Your task to perform on an android device: move an email to a new category in the gmail app Image 0: 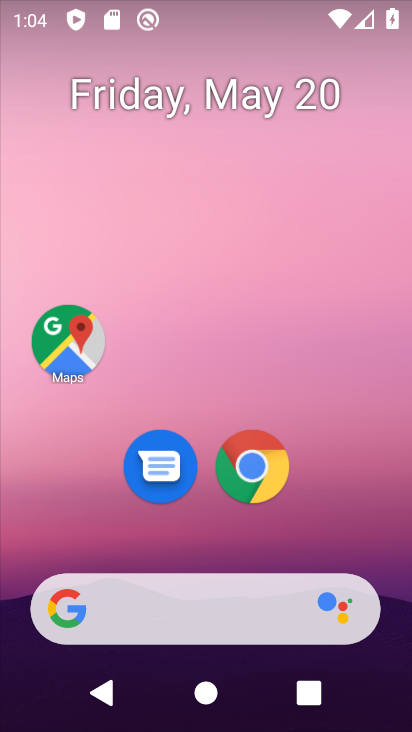
Step 0: drag from (201, 507) to (203, 148)
Your task to perform on an android device: move an email to a new category in the gmail app Image 1: 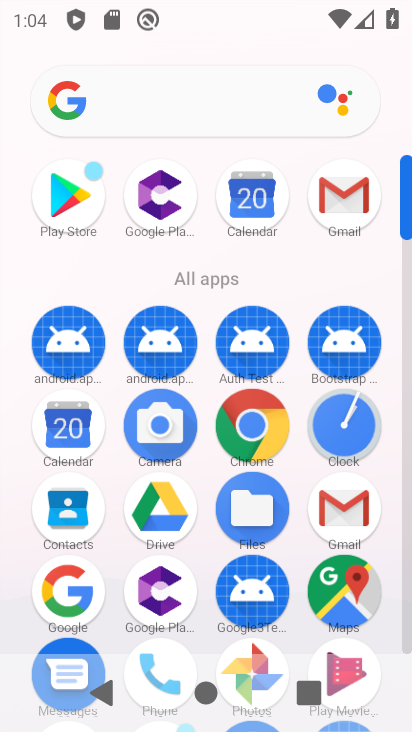
Step 1: click (332, 187)
Your task to perform on an android device: move an email to a new category in the gmail app Image 2: 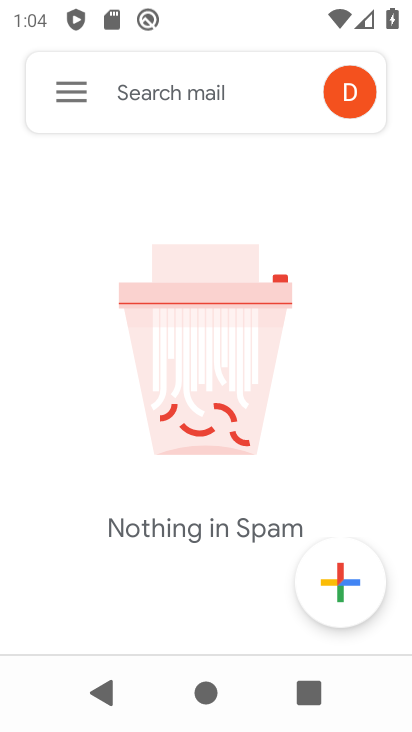
Step 2: click (64, 75)
Your task to perform on an android device: move an email to a new category in the gmail app Image 3: 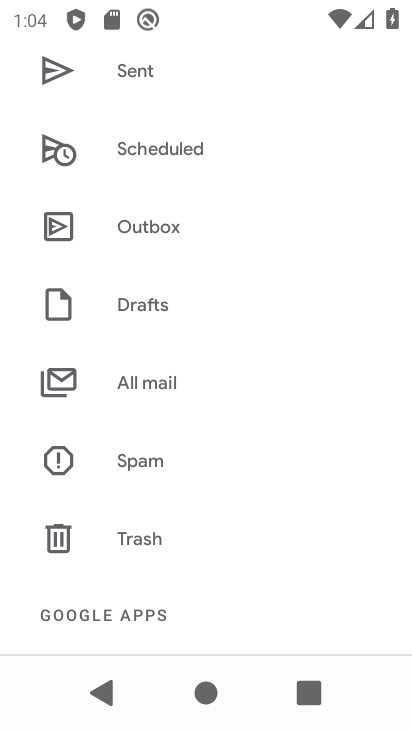
Step 3: drag from (142, 150) to (132, 491)
Your task to perform on an android device: move an email to a new category in the gmail app Image 4: 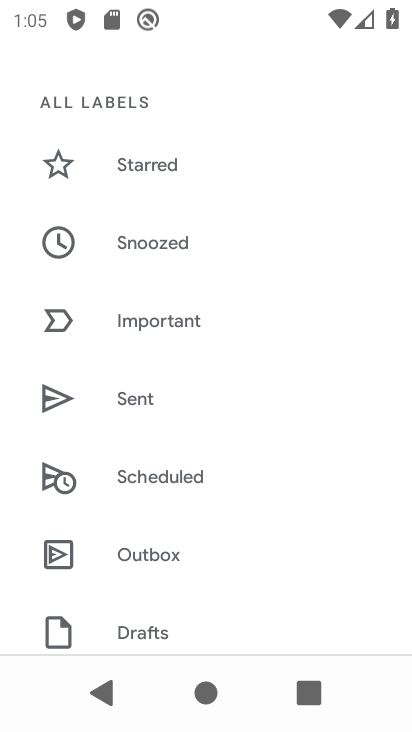
Step 4: drag from (202, 261) to (215, 428)
Your task to perform on an android device: move an email to a new category in the gmail app Image 5: 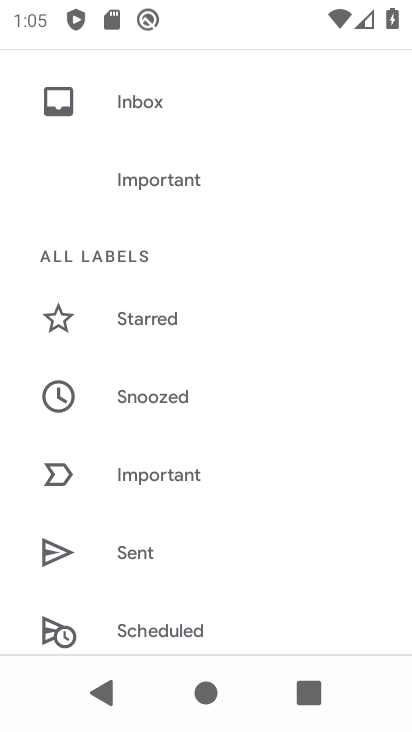
Step 5: drag from (210, 211) to (224, 342)
Your task to perform on an android device: move an email to a new category in the gmail app Image 6: 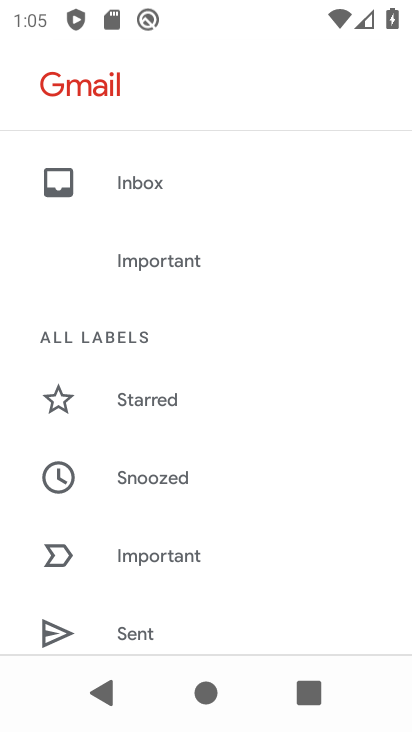
Step 6: click (169, 191)
Your task to perform on an android device: move an email to a new category in the gmail app Image 7: 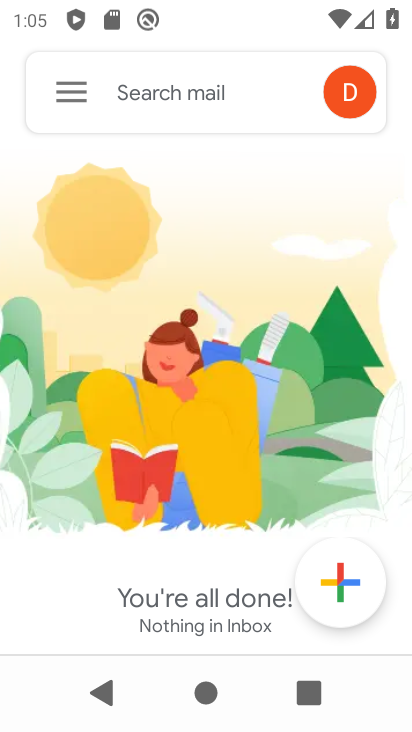
Step 7: task complete